Your task to perform on an android device: stop showing notifications on the lock screen Image 0: 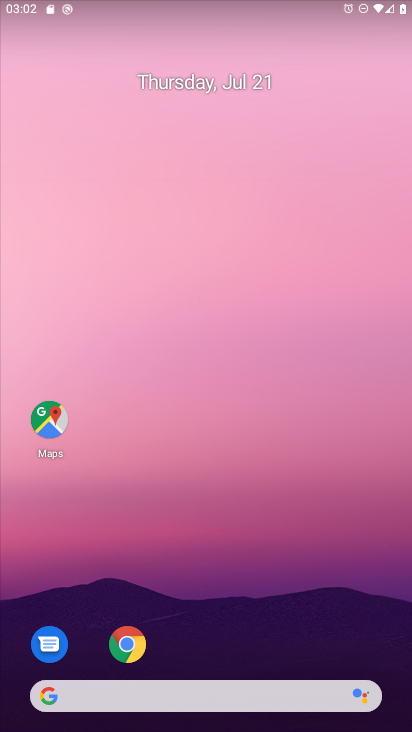
Step 0: drag from (187, 682) to (224, 184)
Your task to perform on an android device: stop showing notifications on the lock screen Image 1: 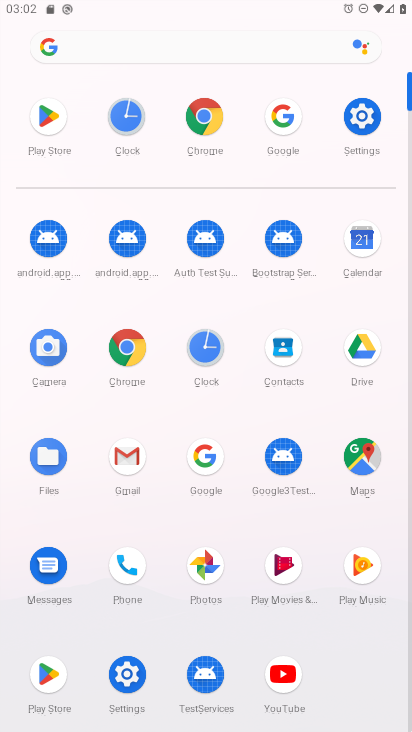
Step 1: click (363, 115)
Your task to perform on an android device: stop showing notifications on the lock screen Image 2: 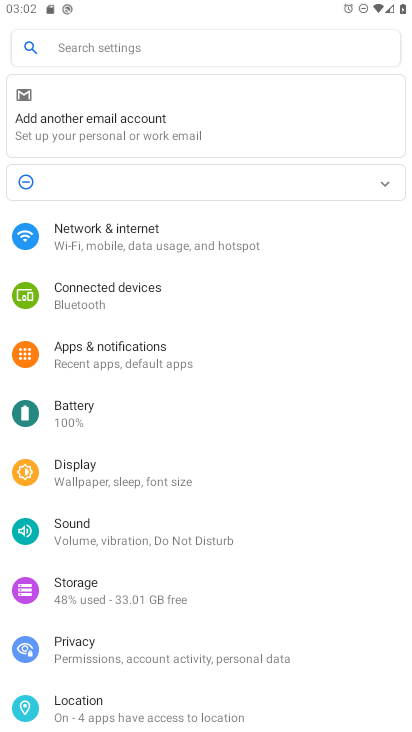
Step 2: click (89, 649)
Your task to perform on an android device: stop showing notifications on the lock screen Image 3: 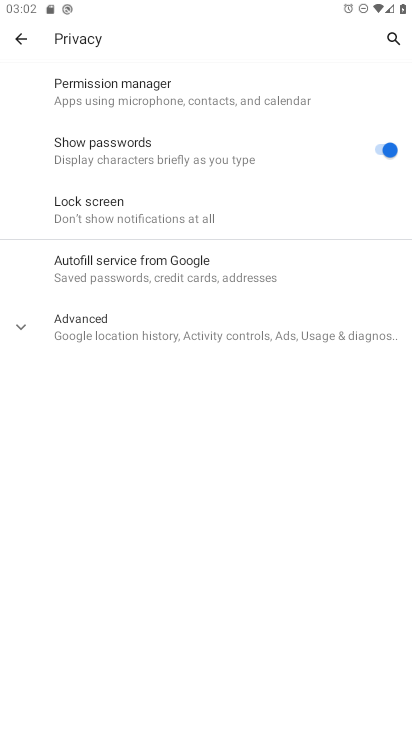
Step 3: click (65, 315)
Your task to perform on an android device: stop showing notifications on the lock screen Image 4: 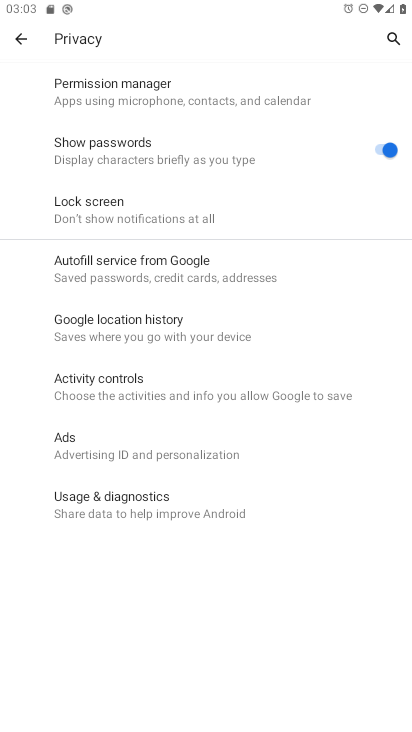
Step 4: click (95, 209)
Your task to perform on an android device: stop showing notifications on the lock screen Image 5: 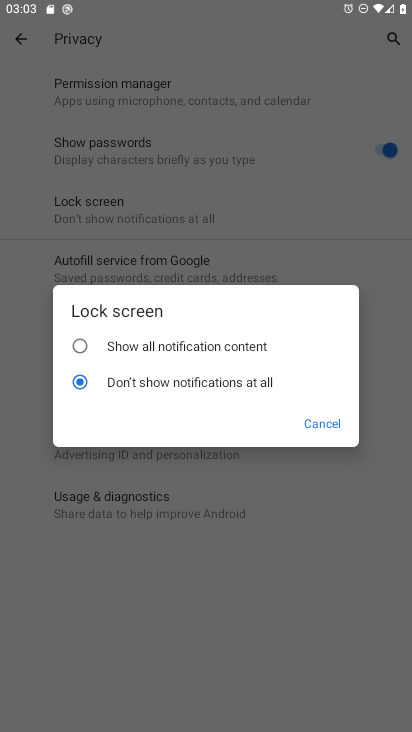
Step 5: click (317, 428)
Your task to perform on an android device: stop showing notifications on the lock screen Image 6: 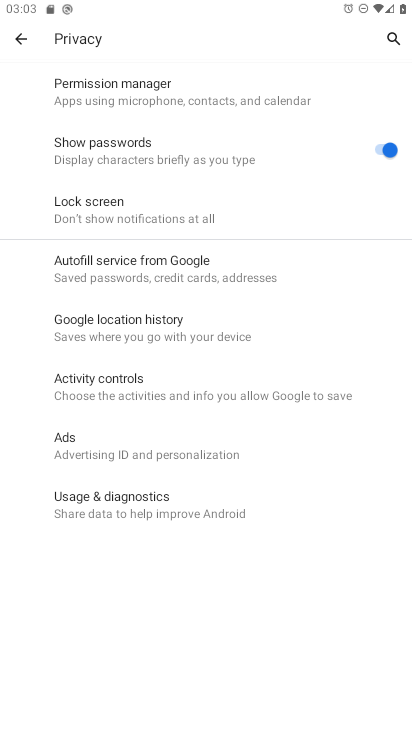
Step 6: task complete